Your task to perform on an android device: Clear the shopping cart on target. Add alienware aurora to the cart on target, then select checkout. Image 0: 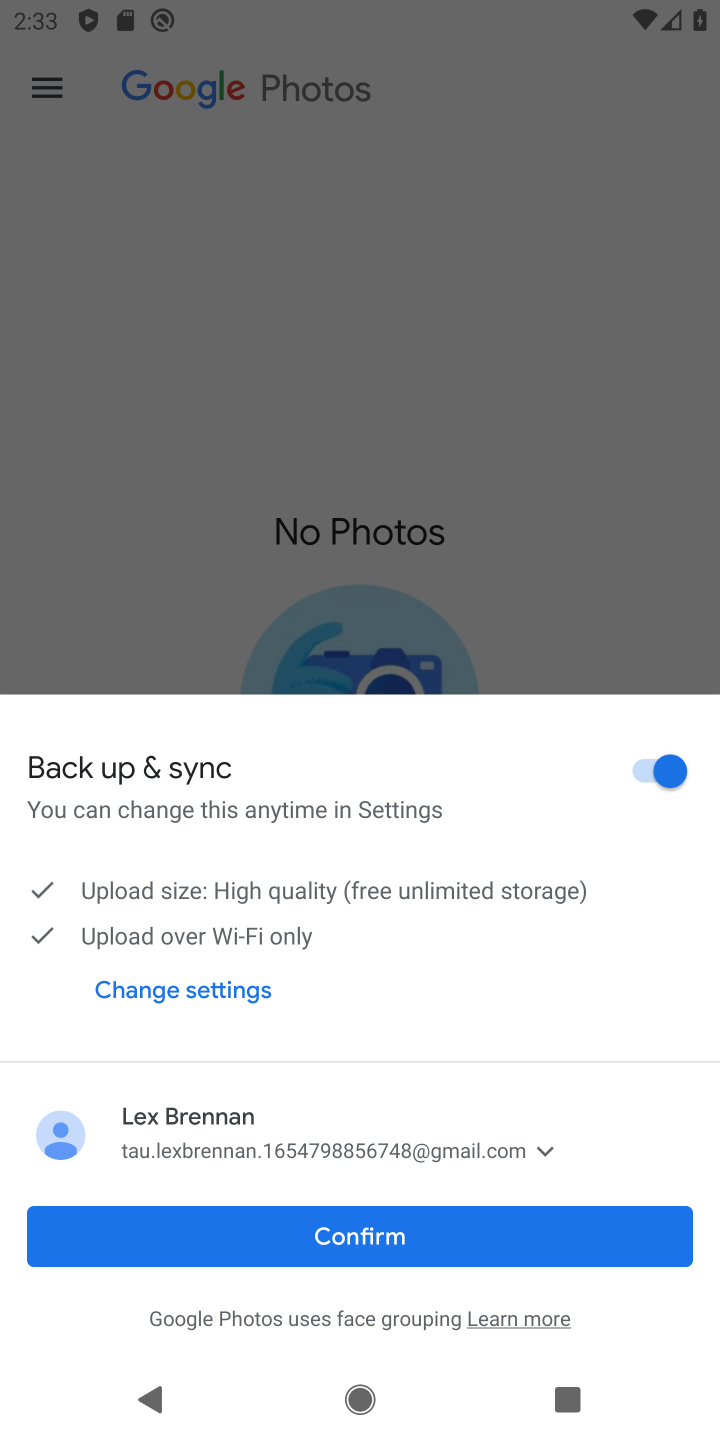
Step 0: press home button
Your task to perform on an android device: Clear the shopping cart on target. Add alienware aurora to the cart on target, then select checkout. Image 1: 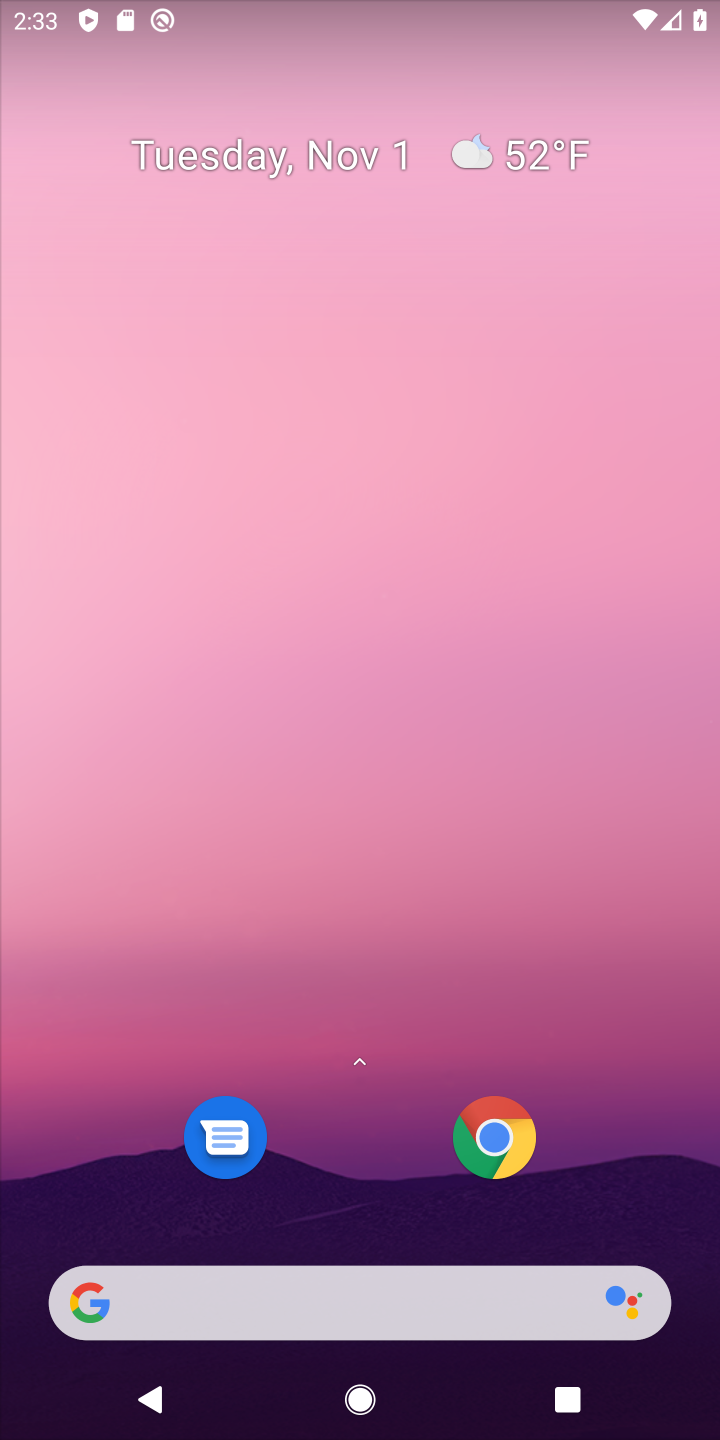
Step 1: click (290, 1293)
Your task to perform on an android device: Clear the shopping cart on target. Add alienware aurora to the cart on target, then select checkout. Image 2: 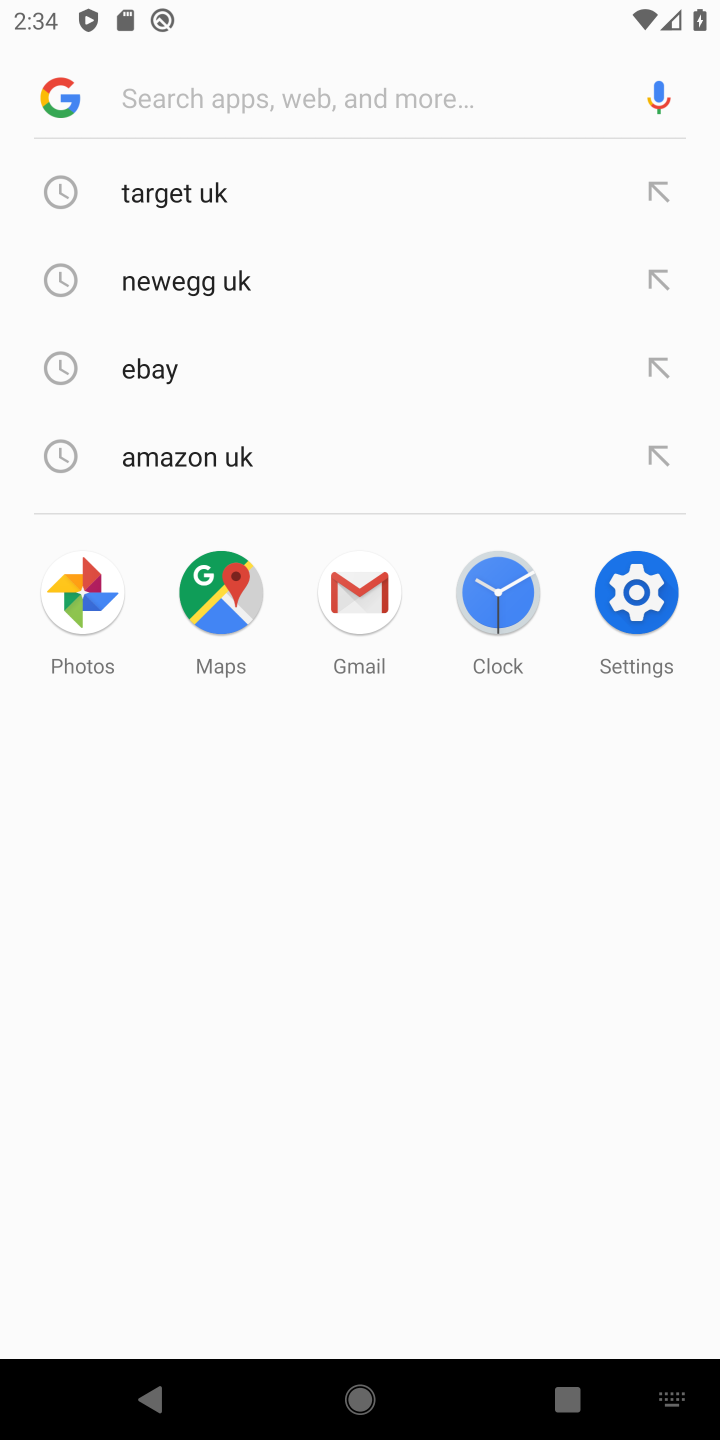
Step 2: type "target"
Your task to perform on an android device: Clear the shopping cart on target. Add alienware aurora to the cart on target, then select checkout. Image 3: 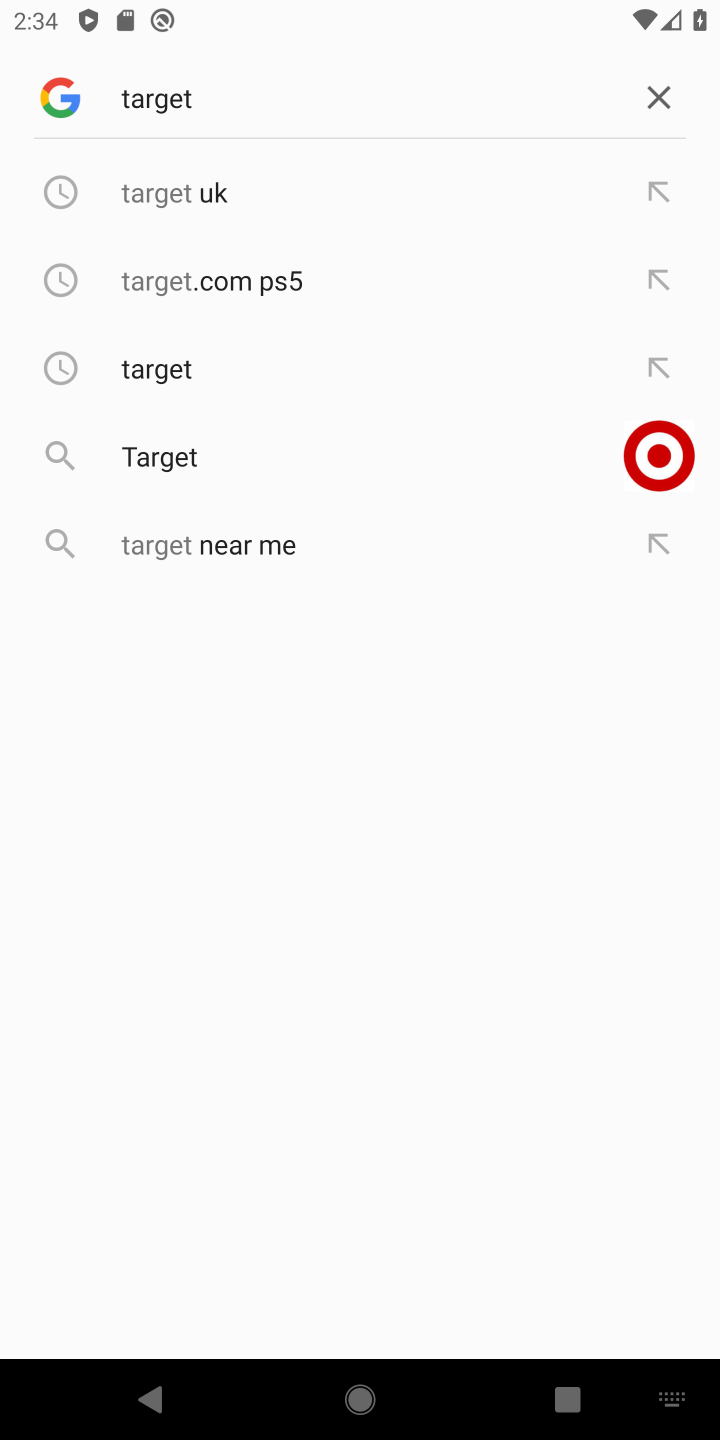
Step 3: click (193, 171)
Your task to perform on an android device: Clear the shopping cart on target. Add alienware aurora to the cart on target, then select checkout. Image 4: 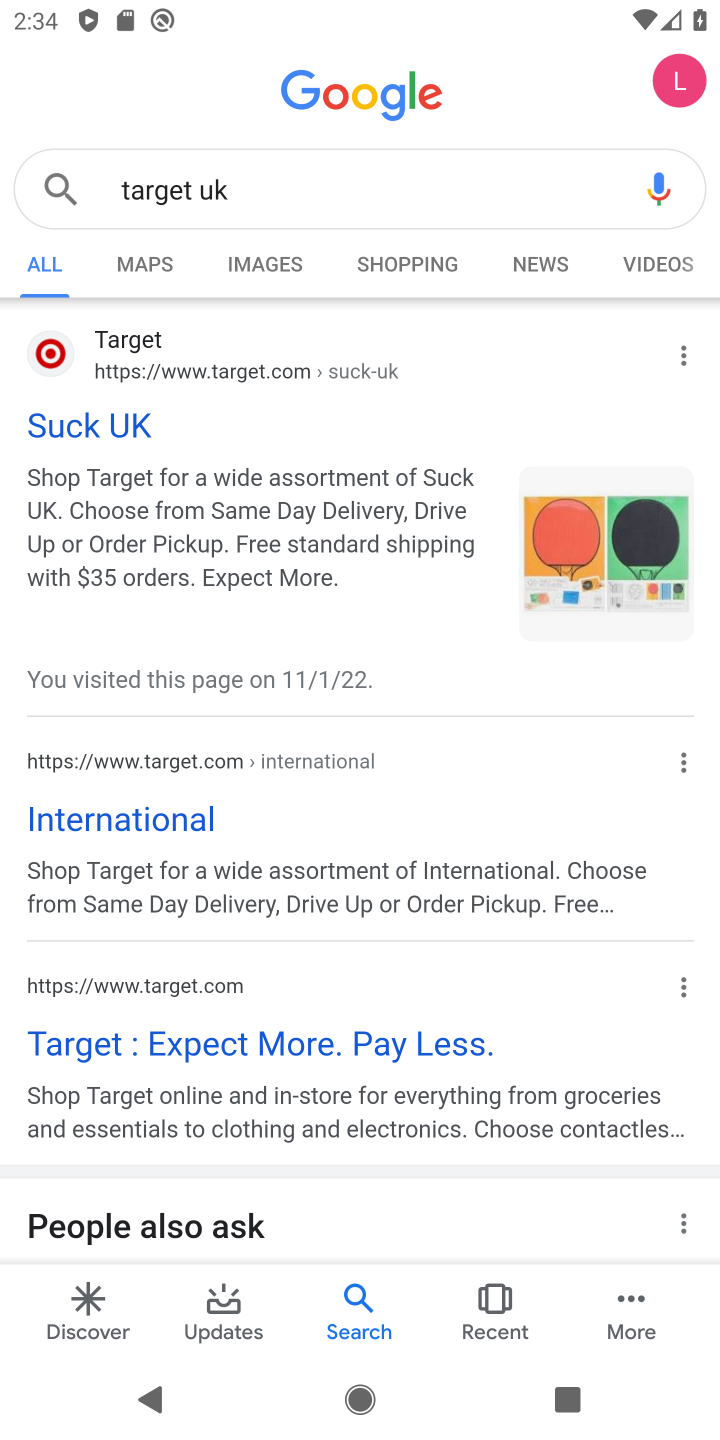
Step 4: click (128, 821)
Your task to perform on an android device: Clear the shopping cart on target. Add alienware aurora to the cart on target, then select checkout. Image 5: 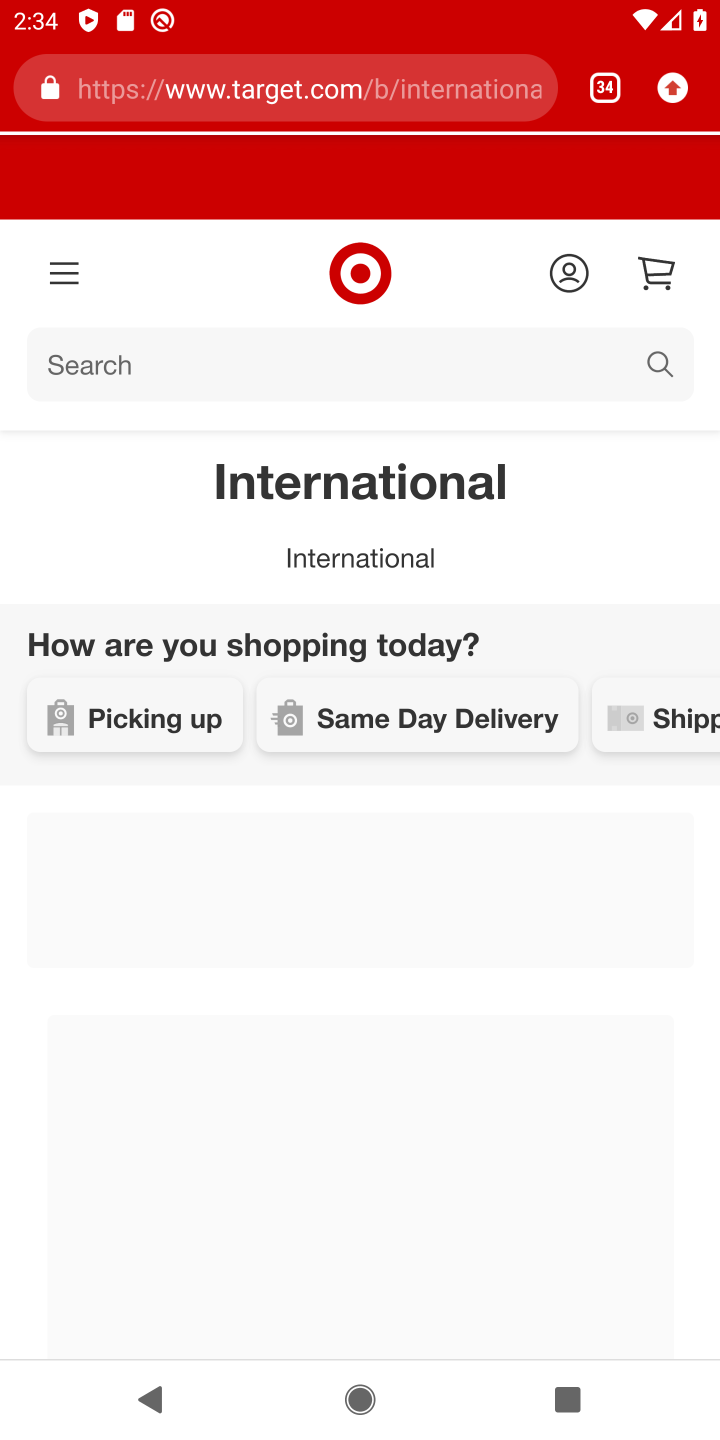
Step 5: click (280, 383)
Your task to perform on an android device: Clear the shopping cart on target. Add alienware aurora to the cart on target, then select checkout. Image 6: 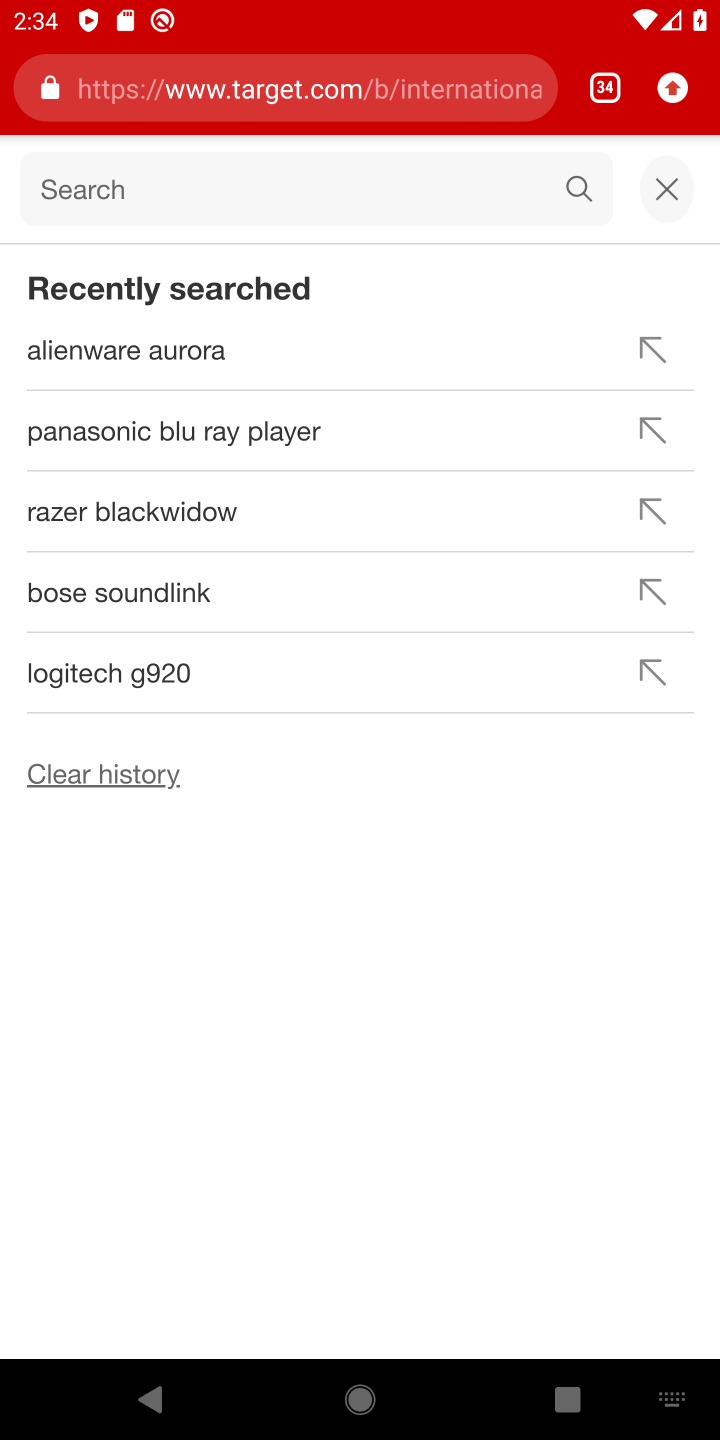
Step 6: type "alienware aurora"
Your task to perform on an android device: Clear the shopping cart on target. Add alienware aurora to the cart on target, then select checkout. Image 7: 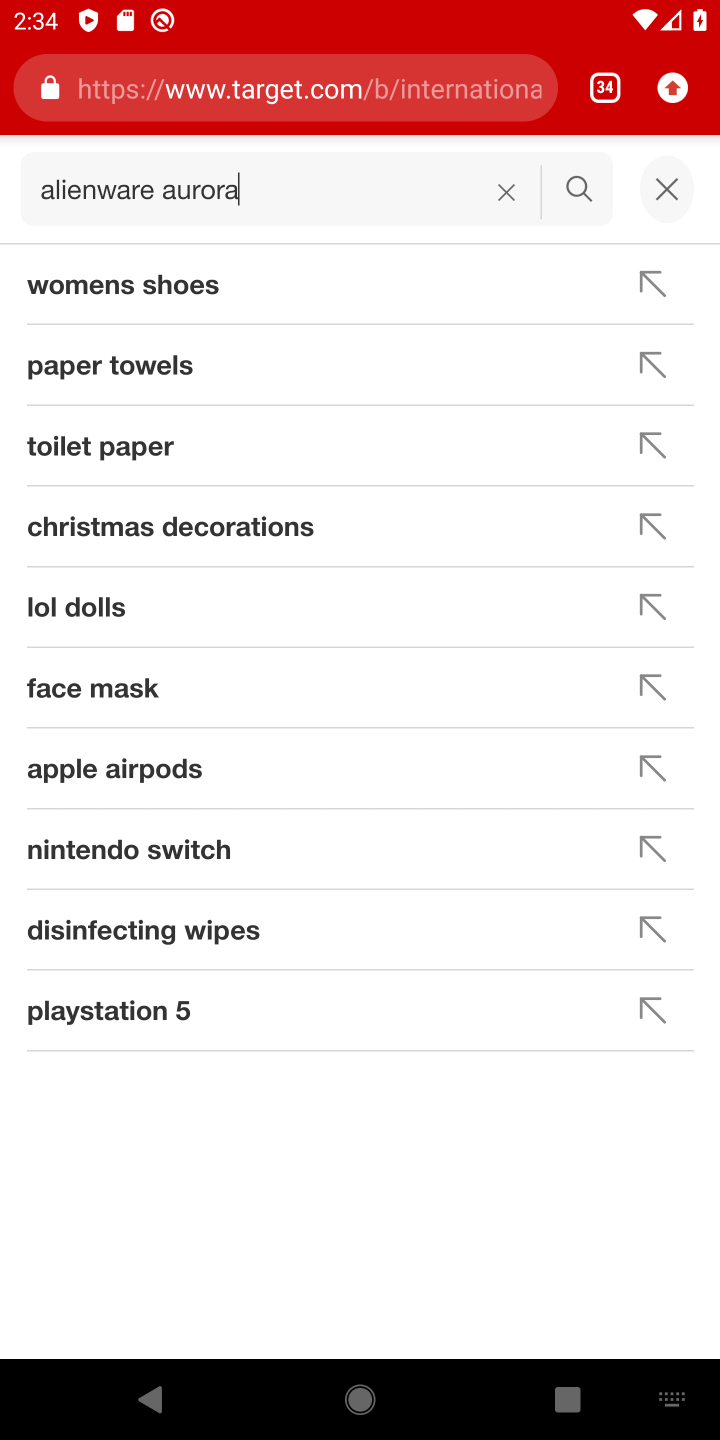
Step 7: click (247, 352)
Your task to perform on an android device: Clear the shopping cart on target. Add alienware aurora to the cart on target, then select checkout. Image 8: 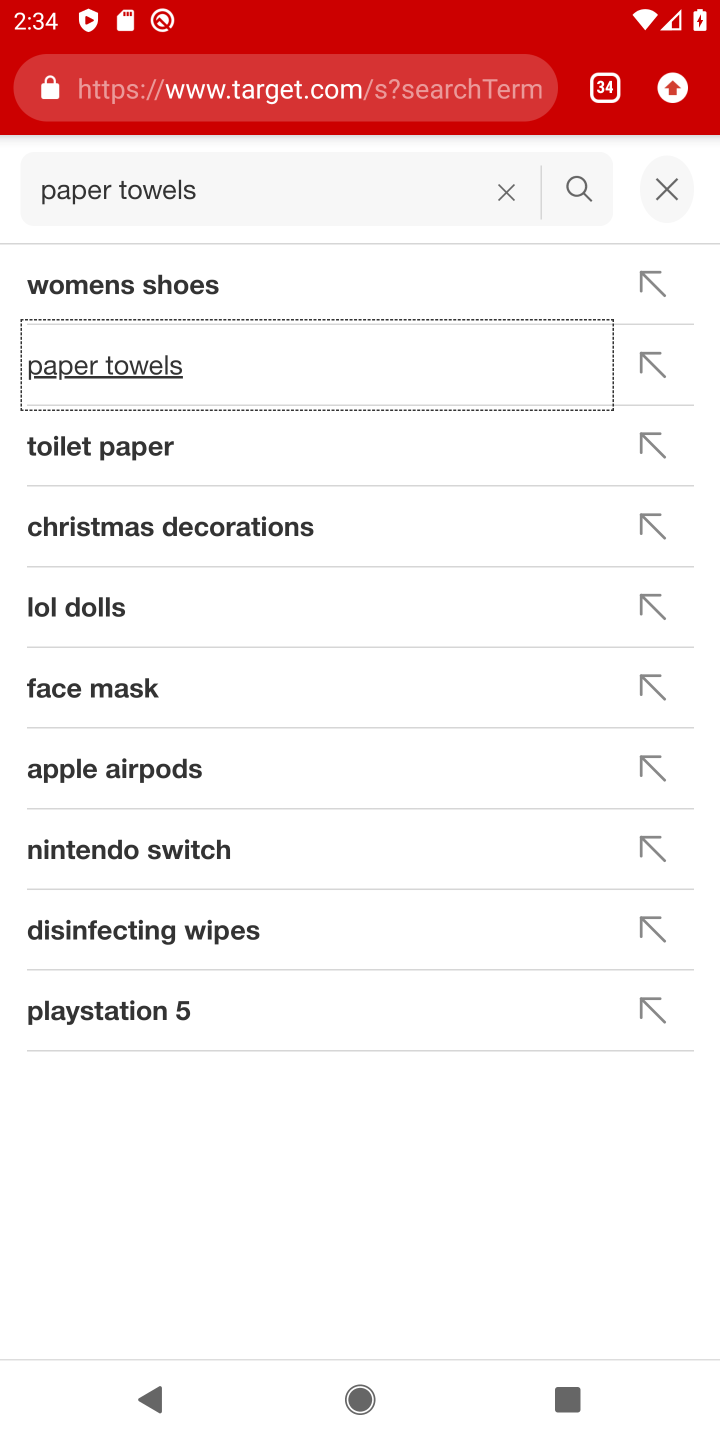
Step 8: click (569, 203)
Your task to perform on an android device: Clear the shopping cart on target. Add alienware aurora to the cart on target, then select checkout. Image 9: 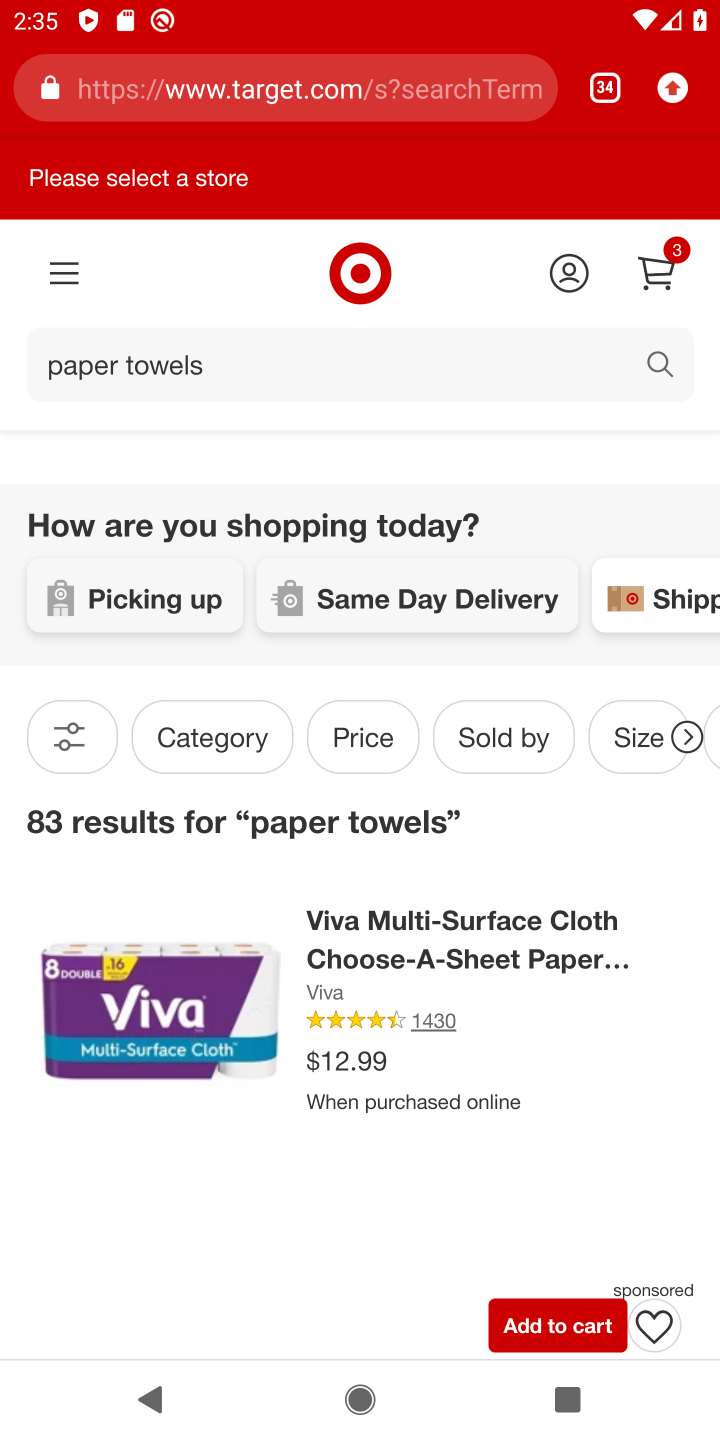
Step 9: click (573, 1342)
Your task to perform on an android device: Clear the shopping cart on target. Add alienware aurora to the cart on target, then select checkout. Image 10: 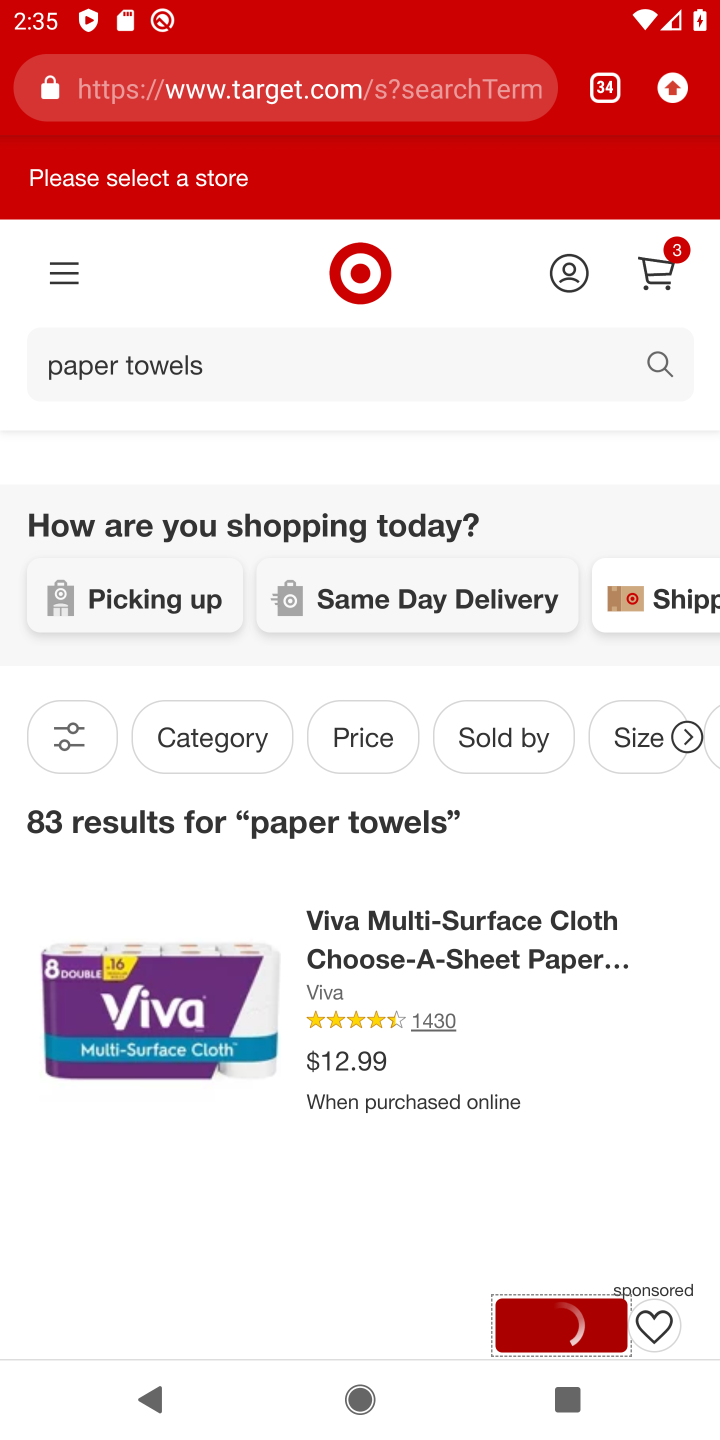
Step 10: task complete